Your task to perform on an android device: Open Google Chrome and open the bookmarks view Image 0: 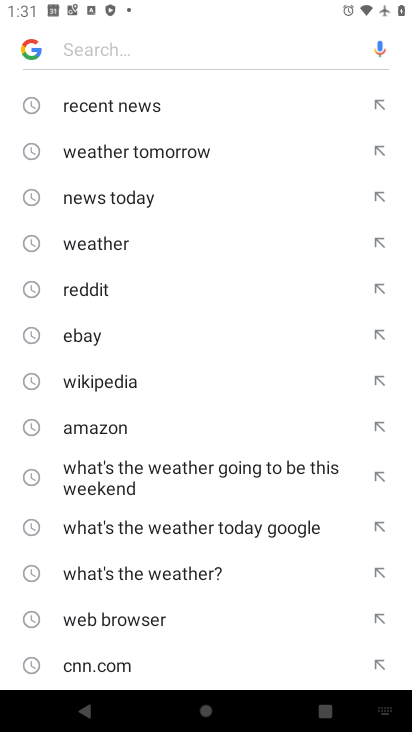
Step 0: press home button
Your task to perform on an android device: Open Google Chrome and open the bookmarks view Image 1: 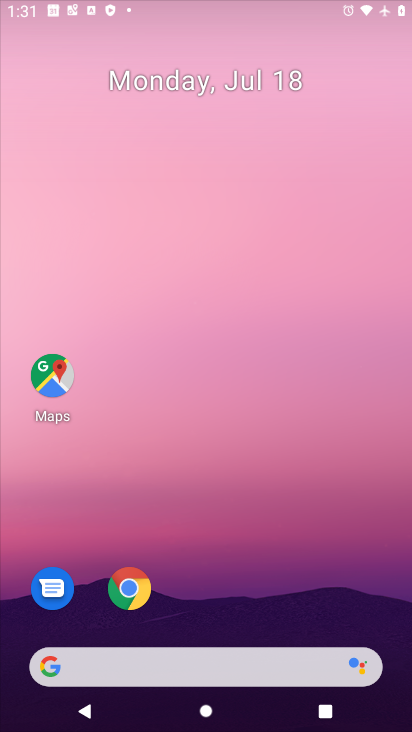
Step 1: drag from (211, 658) to (238, 223)
Your task to perform on an android device: Open Google Chrome and open the bookmarks view Image 2: 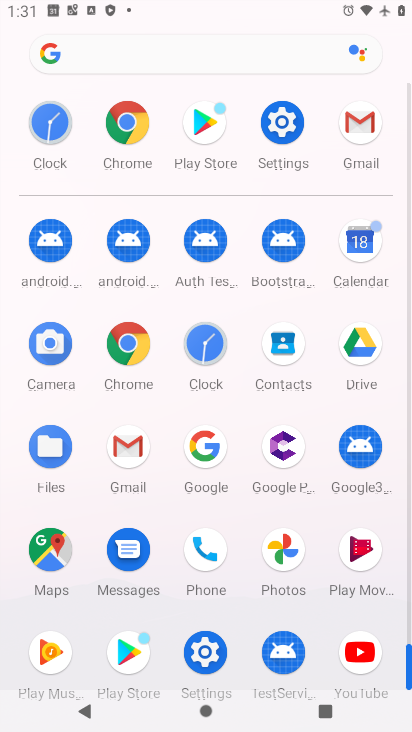
Step 2: click (138, 129)
Your task to perform on an android device: Open Google Chrome and open the bookmarks view Image 3: 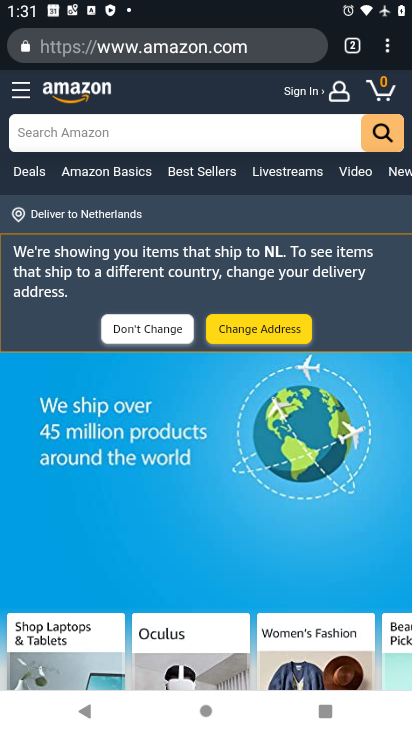
Step 3: click (390, 58)
Your task to perform on an android device: Open Google Chrome and open the bookmarks view Image 4: 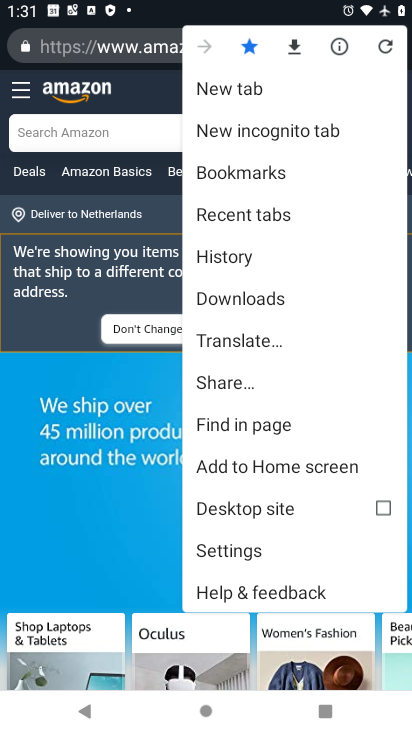
Step 4: click (251, 184)
Your task to perform on an android device: Open Google Chrome and open the bookmarks view Image 5: 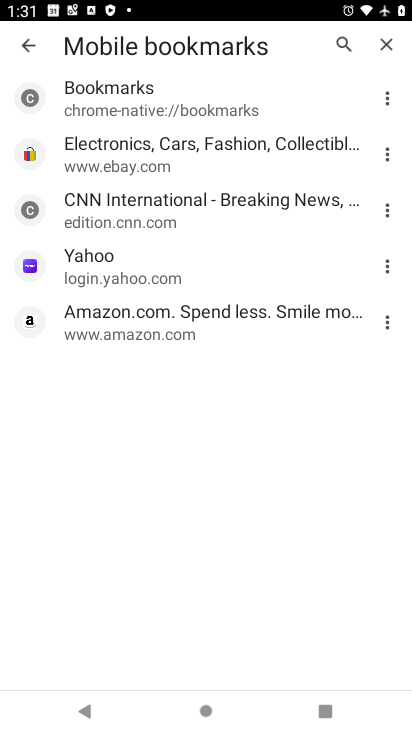
Step 5: task complete